Your task to perform on an android device: Go to location settings Image 0: 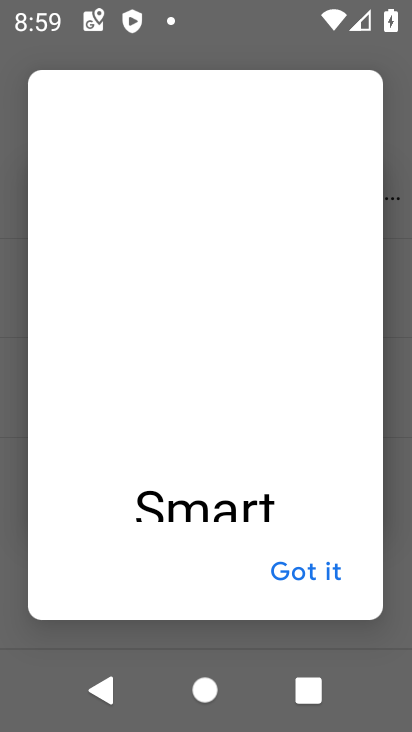
Step 0: press home button
Your task to perform on an android device: Go to location settings Image 1: 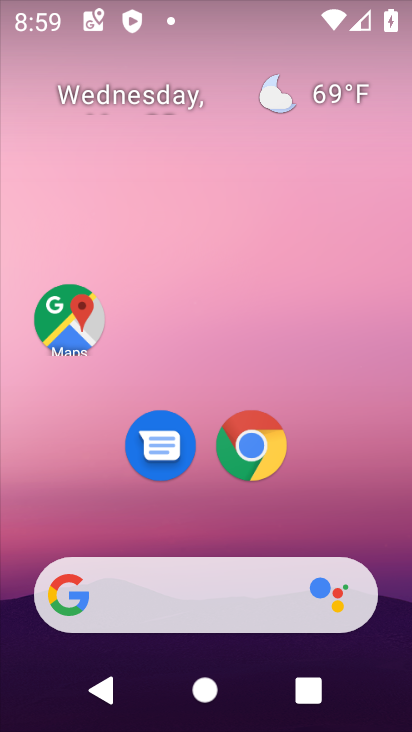
Step 1: drag from (307, 505) to (321, 94)
Your task to perform on an android device: Go to location settings Image 2: 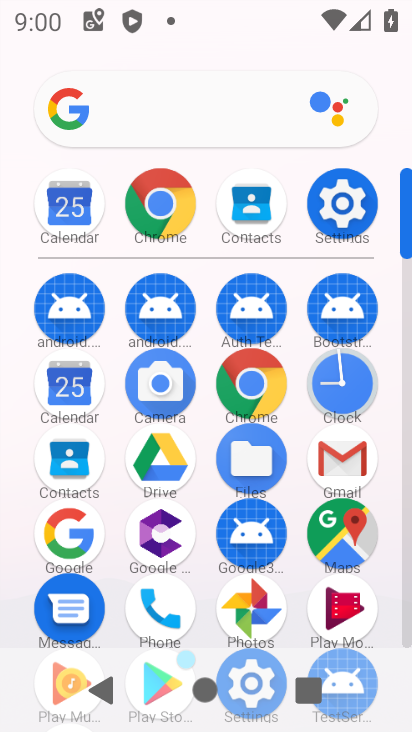
Step 2: click (334, 545)
Your task to perform on an android device: Go to location settings Image 3: 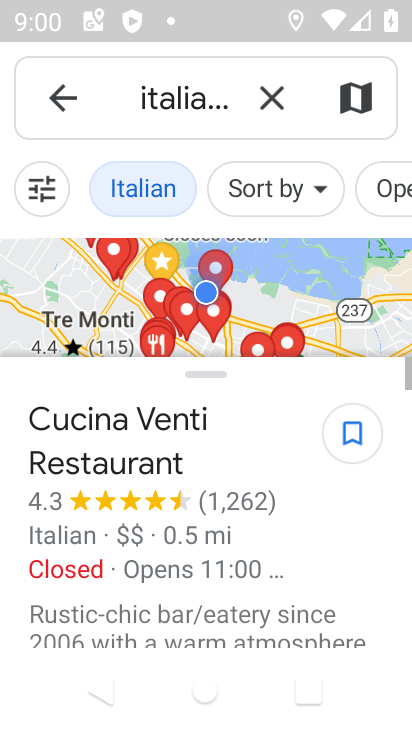
Step 3: click (61, 91)
Your task to perform on an android device: Go to location settings Image 4: 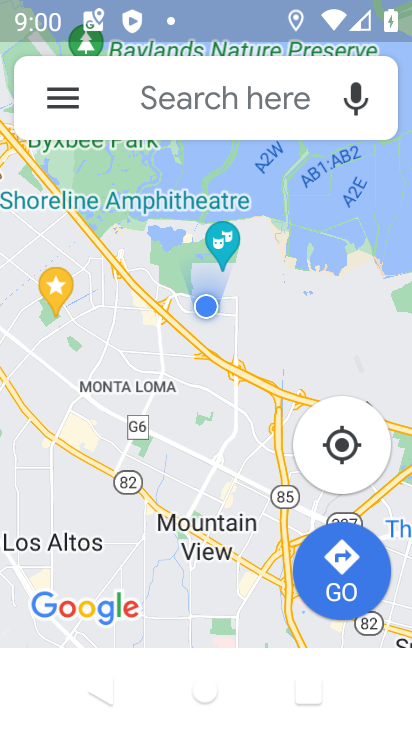
Step 4: press home button
Your task to perform on an android device: Go to location settings Image 5: 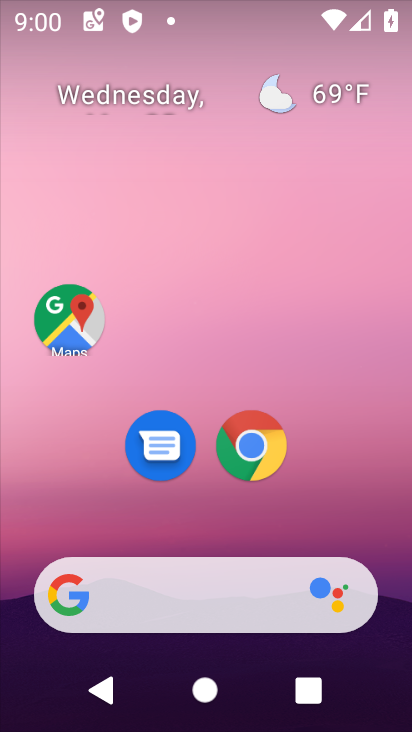
Step 5: drag from (296, 514) to (289, 65)
Your task to perform on an android device: Go to location settings Image 6: 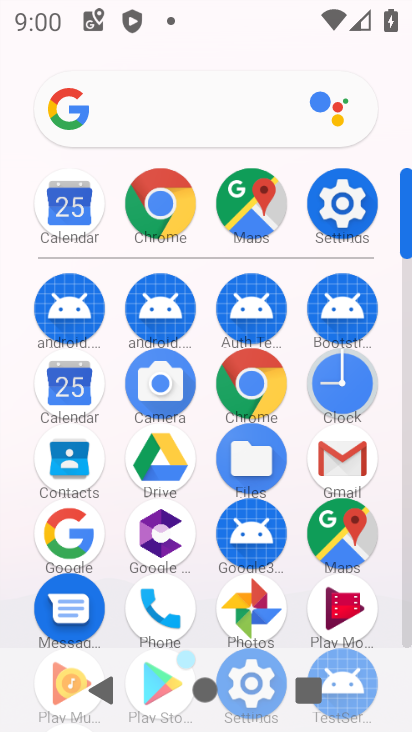
Step 6: click (329, 199)
Your task to perform on an android device: Go to location settings Image 7: 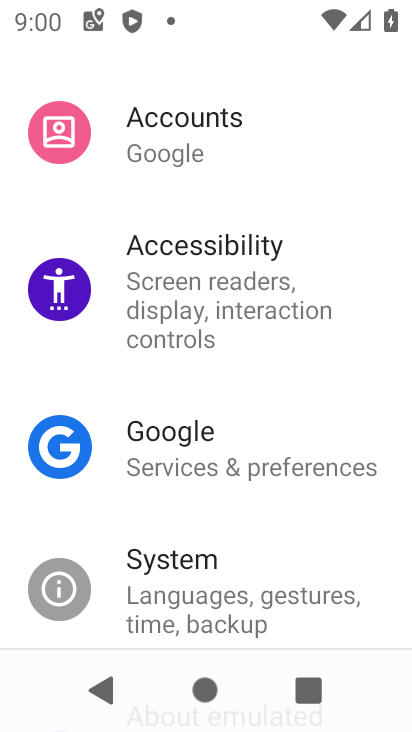
Step 7: drag from (336, 169) to (293, 547)
Your task to perform on an android device: Go to location settings Image 8: 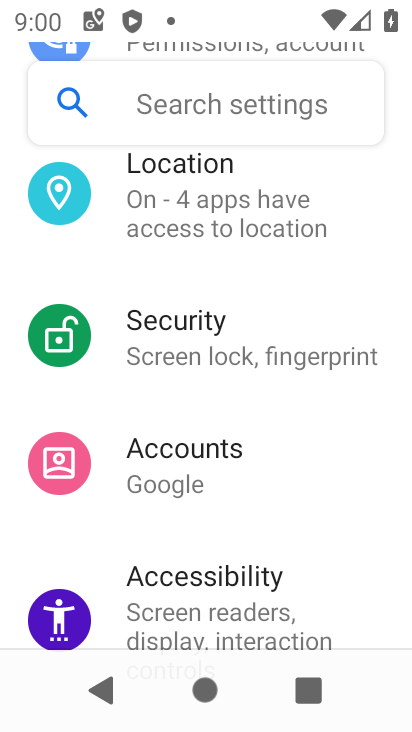
Step 8: click (194, 206)
Your task to perform on an android device: Go to location settings Image 9: 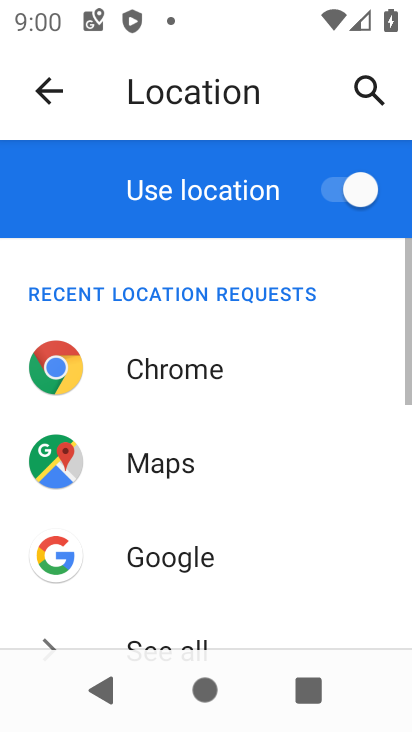
Step 9: task complete